Your task to perform on an android device: turn on priority inbox in the gmail app Image 0: 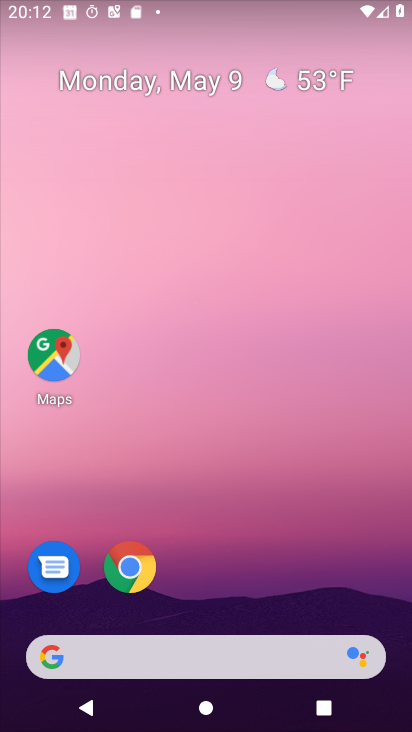
Step 0: drag from (232, 575) to (332, 7)
Your task to perform on an android device: turn on priority inbox in the gmail app Image 1: 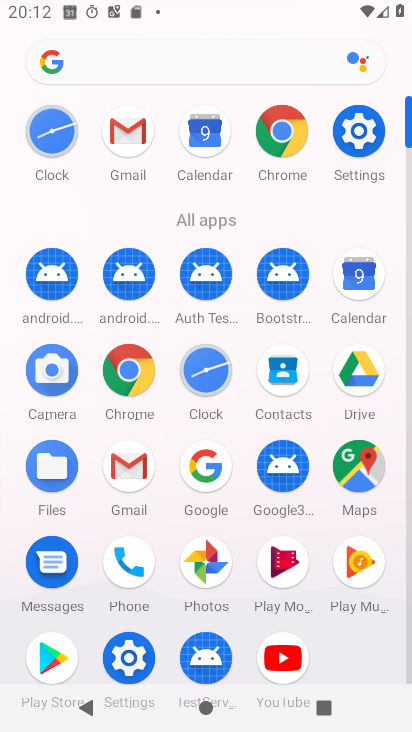
Step 1: click (121, 133)
Your task to perform on an android device: turn on priority inbox in the gmail app Image 2: 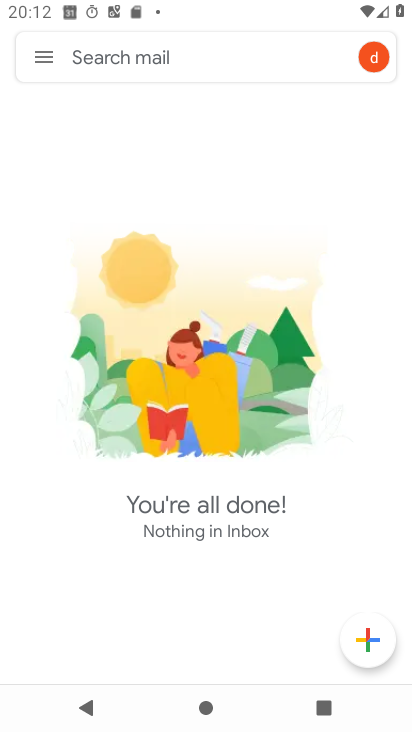
Step 2: click (41, 61)
Your task to perform on an android device: turn on priority inbox in the gmail app Image 3: 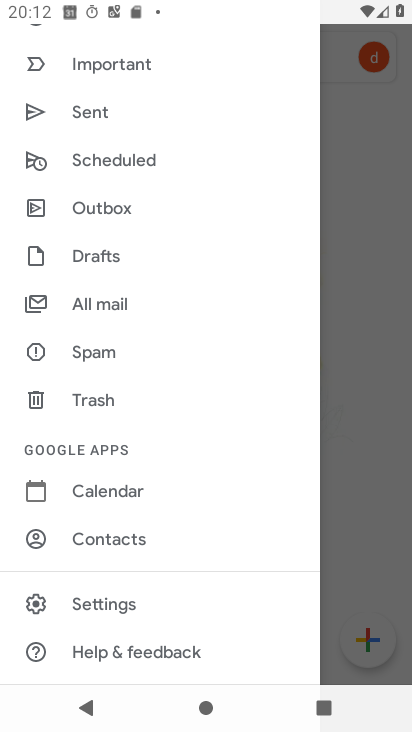
Step 3: click (106, 596)
Your task to perform on an android device: turn on priority inbox in the gmail app Image 4: 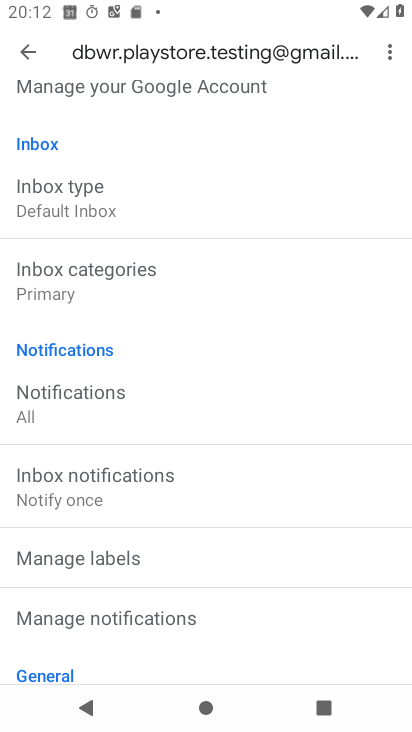
Step 4: click (65, 208)
Your task to perform on an android device: turn on priority inbox in the gmail app Image 5: 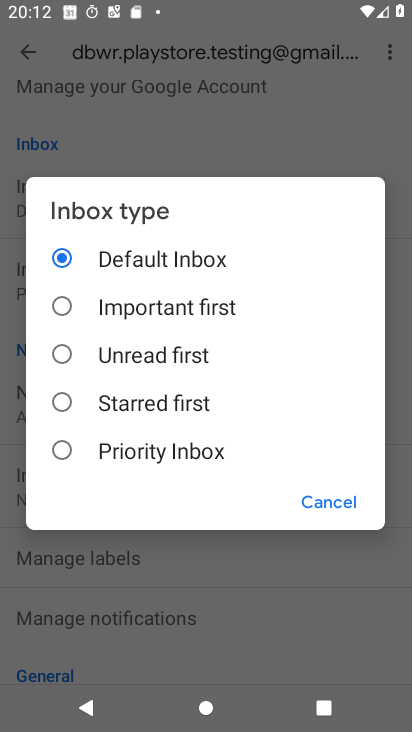
Step 5: click (154, 453)
Your task to perform on an android device: turn on priority inbox in the gmail app Image 6: 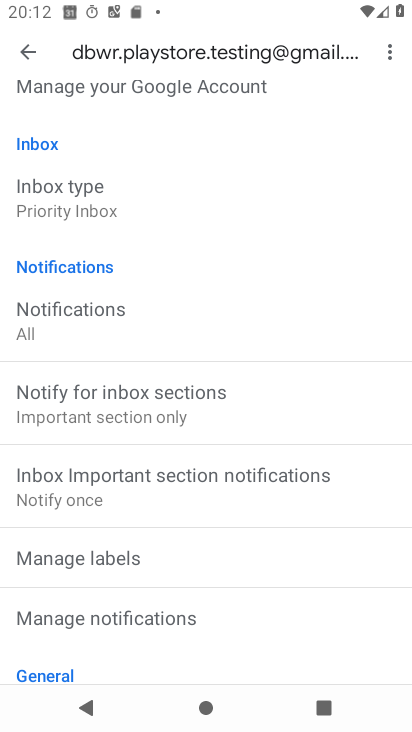
Step 6: task complete